Your task to perform on an android device: turn on notifications settings in the gmail app Image 0: 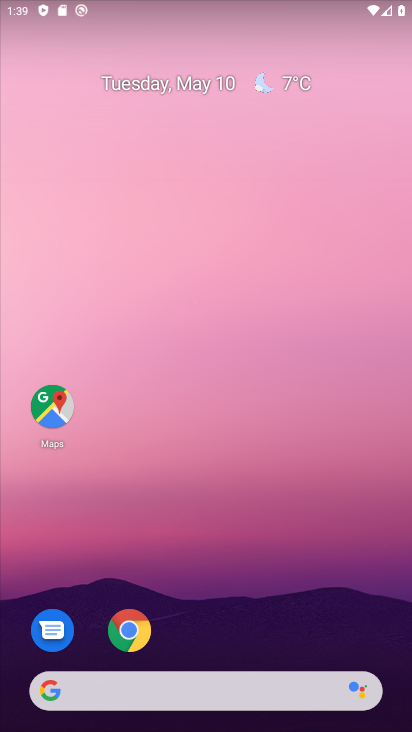
Step 0: drag from (225, 572) to (148, 0)
Your task to perform on an android device: turn on notifications settings in the gmail app Image 1: 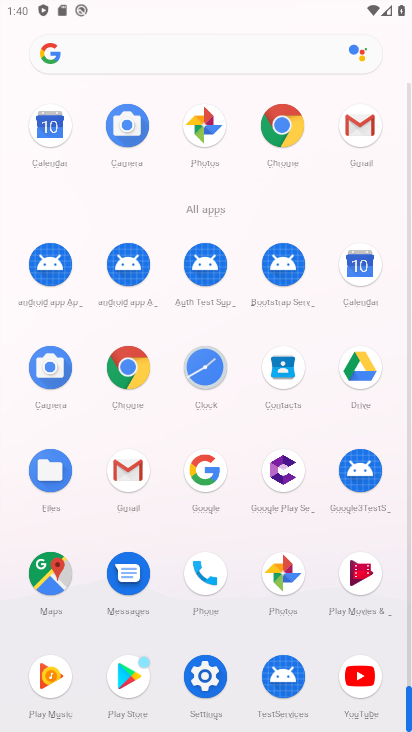
Step 1: click (204, 672)
Your task to perform on an android device: turn on notifications settings in the gmail app Image 2: 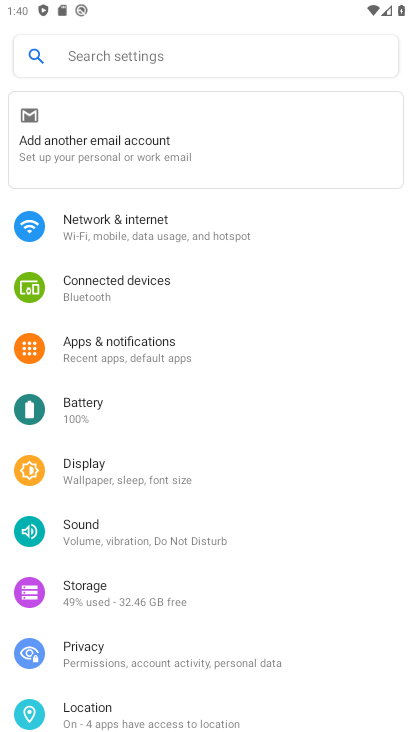
Step 2: click (123, 353)
Your task to perform on an android device: turn on notifications settings in the gmail app Image 3: 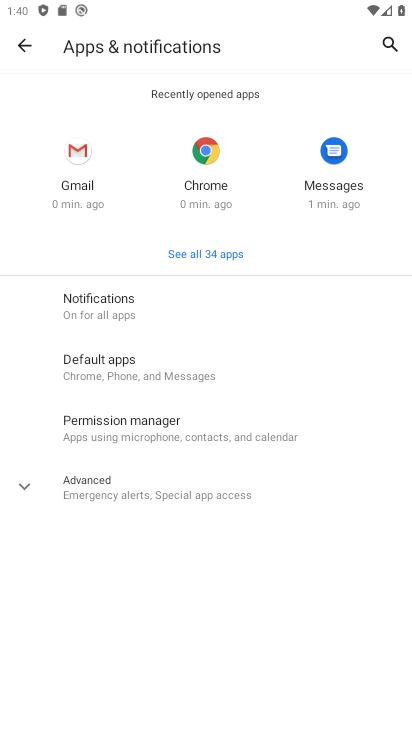
Step 3: click (120, 311)
Your task to perform on an android device: turn on notifications settings in the gmail app Image 4: 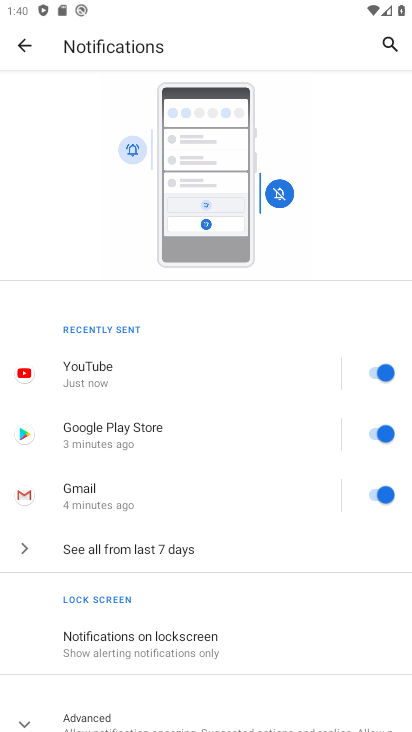
Step 4: task complete